Your task to perform on an android device: What is the recent news? Image 0: 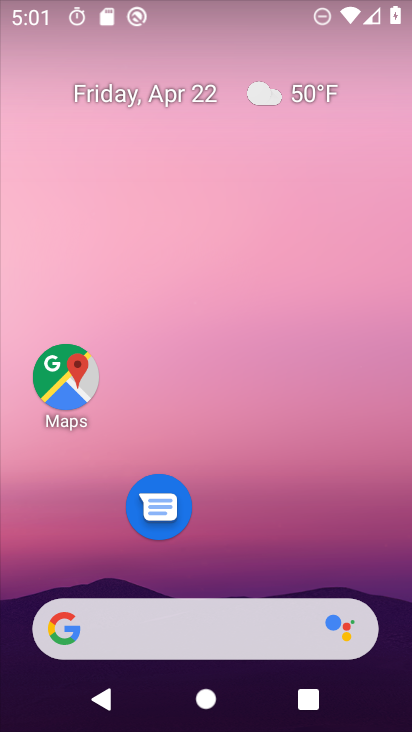
Step 0: drag from (255, 548) to (277, 100)
Your task to perform on an android device: What is the recent news? Image 1: 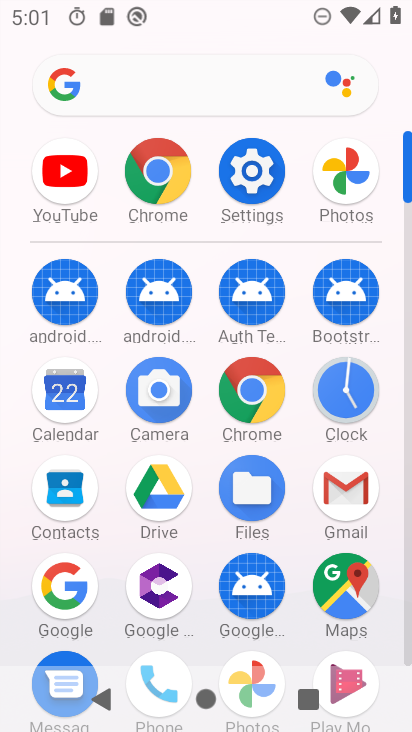
Step 1: click (160, 93)
Your task to perform on an android device: What is the recent news? Image 2: 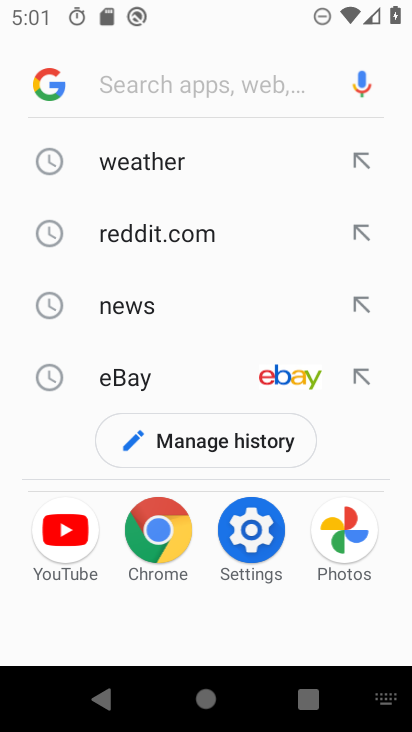
Step 2: click (135, 297)
Your task to perform on an android device: What is the recent news? Image 3: 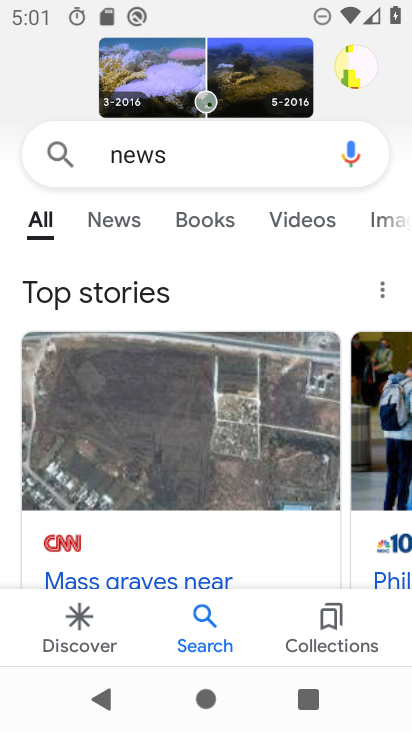
Step 3: task complete